Your task to perform on an android device: Turn off the flashlight Image 0: 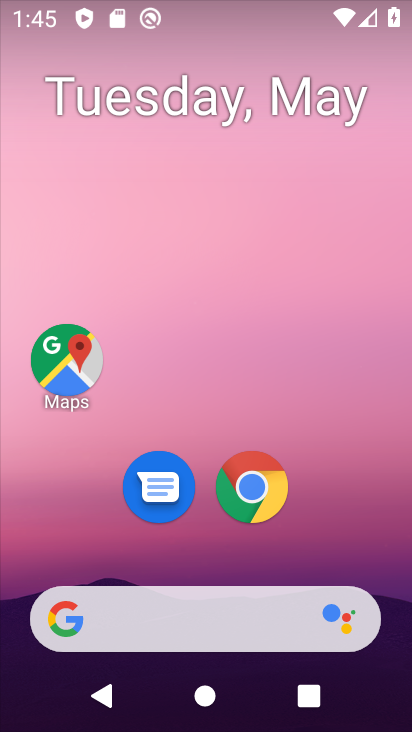
Step 0: drag from (214, 557) to (219, 104)
Your task to perform on an android device: Turn off the flashlight Image 1: 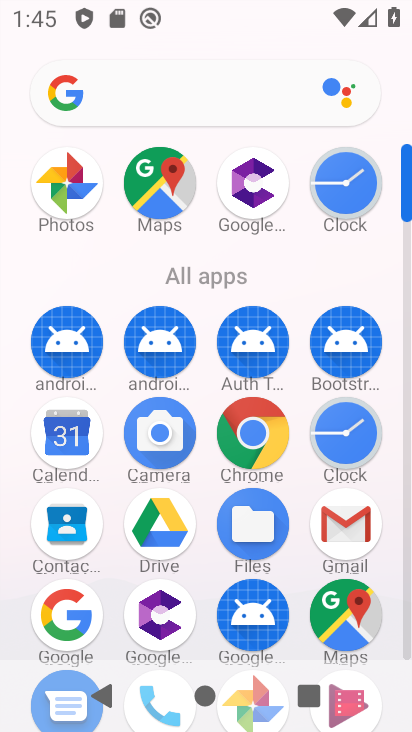
Step 1: task complete